Your task to perform on an android device: toggle airplane mode Image 0: 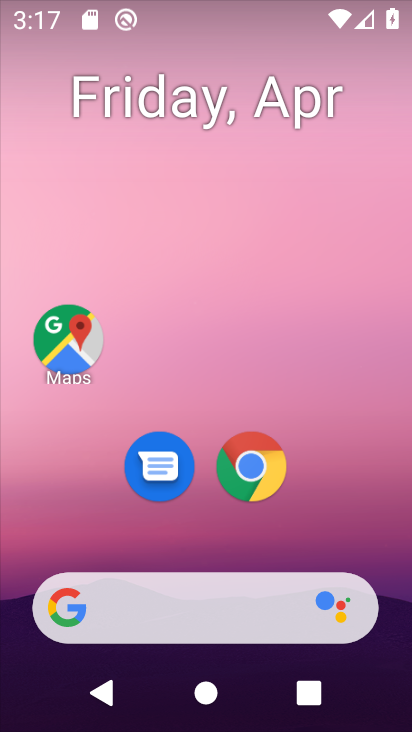
Step 0: drag from (260, 540) to (248, 190)
Your task to perform on an android device: toggle airplane mode Image 1: 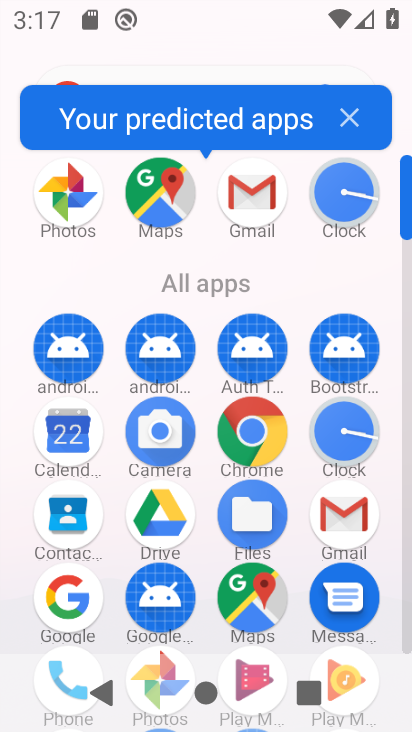
Step 1: drag from (228, 293) to (220, 97)
Your task to perform on an android device: toggle airplane mode Image 2: 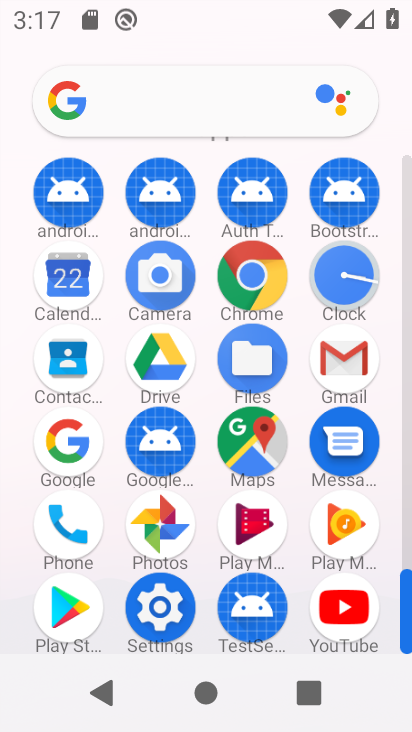
Step 2: click (151, 624)
Your task to perform on an android device: toggle airplane mode Image 3: 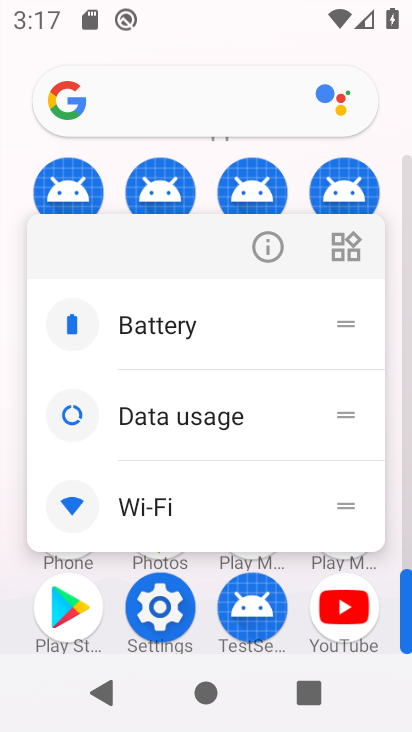
Step 3: click (273, 247)
Your task to perform on an android device: toggle airplane mode Image 4: 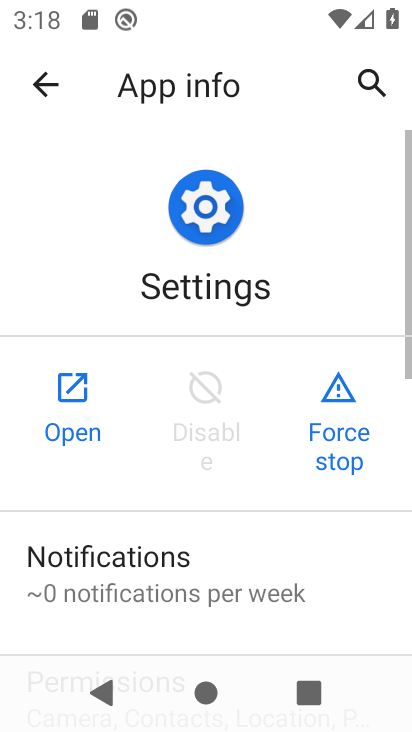
Step 4: click (77, 422)
Your task to perform on an android device: toggle airplane mode Image 5: 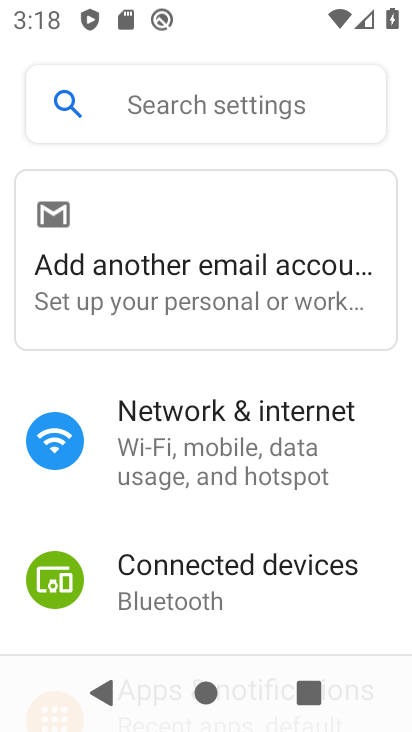
Step 5: click (206, 462)
Your task to perform on an android device: toggle airplane mode Image 6: 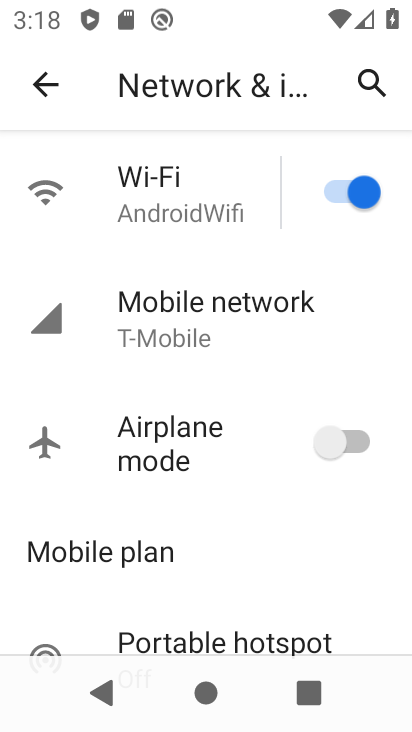
Step 6: click (329, 454)
Your task to perform on an android device: toggle airplane mode Image 7: 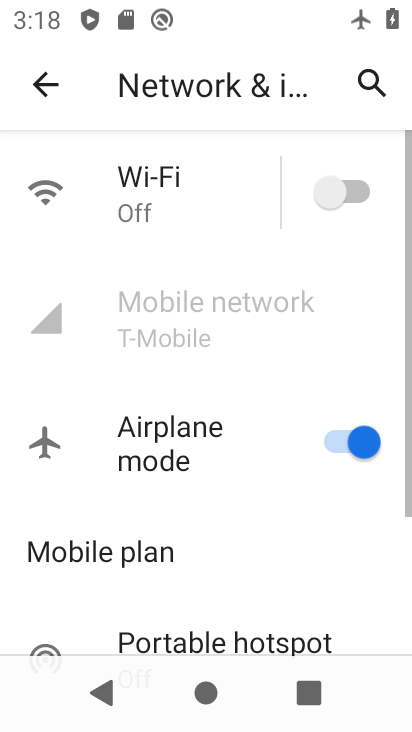
Step 7: task complete